Your task to perform on an android device: turn pop-ups on in chrome Image 0: 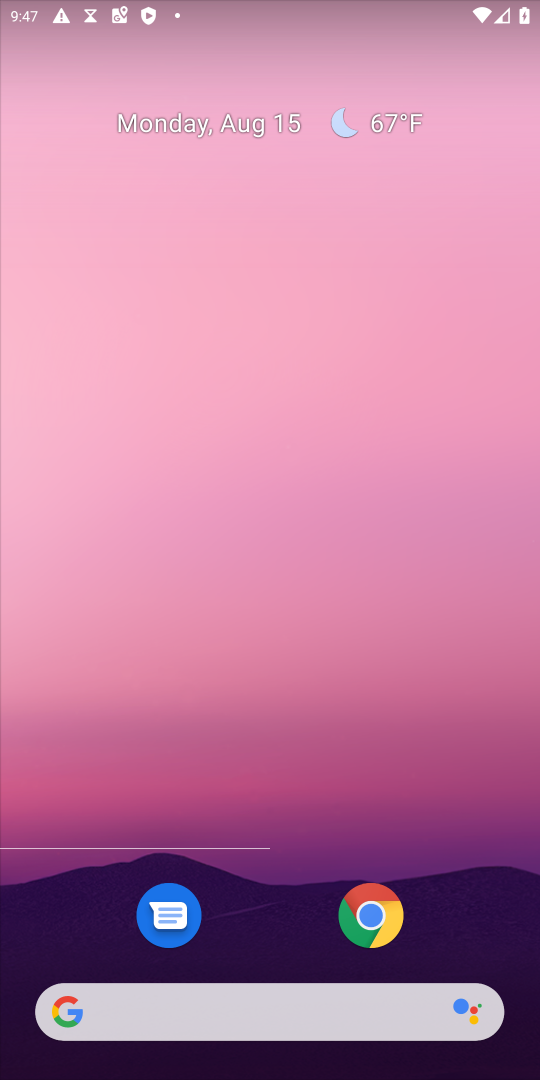
Step 0: click (379, 922)
Your task to perform on an android device: turn pop-ups on in chrome Image 1: 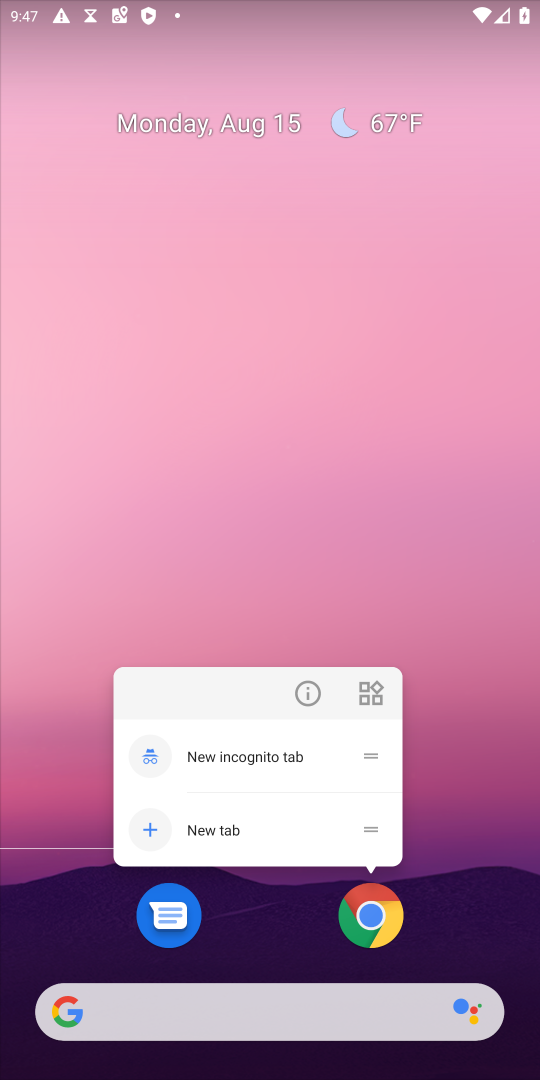
Step 1: click (381, 912)
Your task to perform on an android device: turn pop-ups on in chrome Image 2: 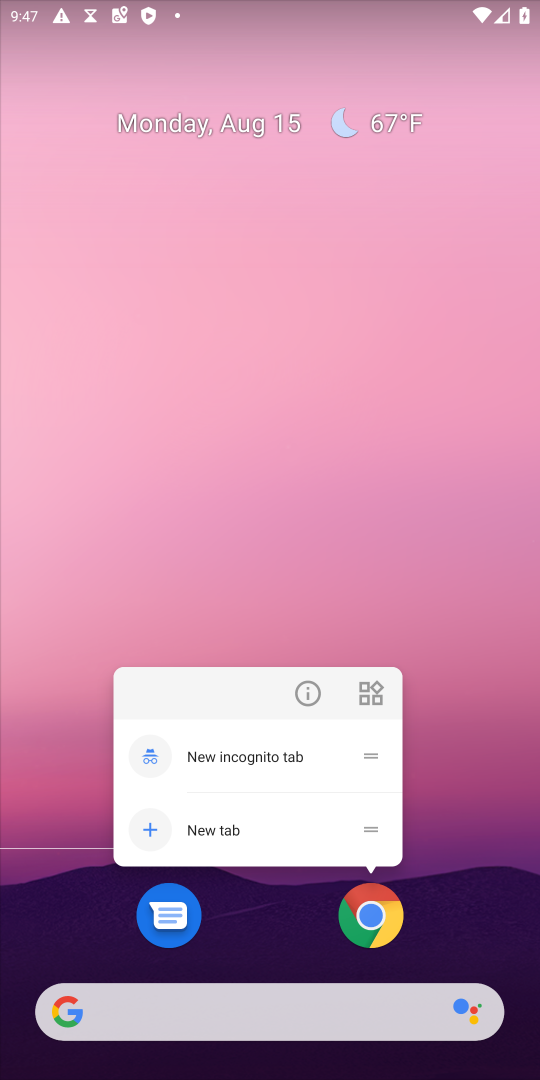
Step 2: click (381, 911)
Your task to perform on an android device: turn pop-ups on in chrome Image 3: 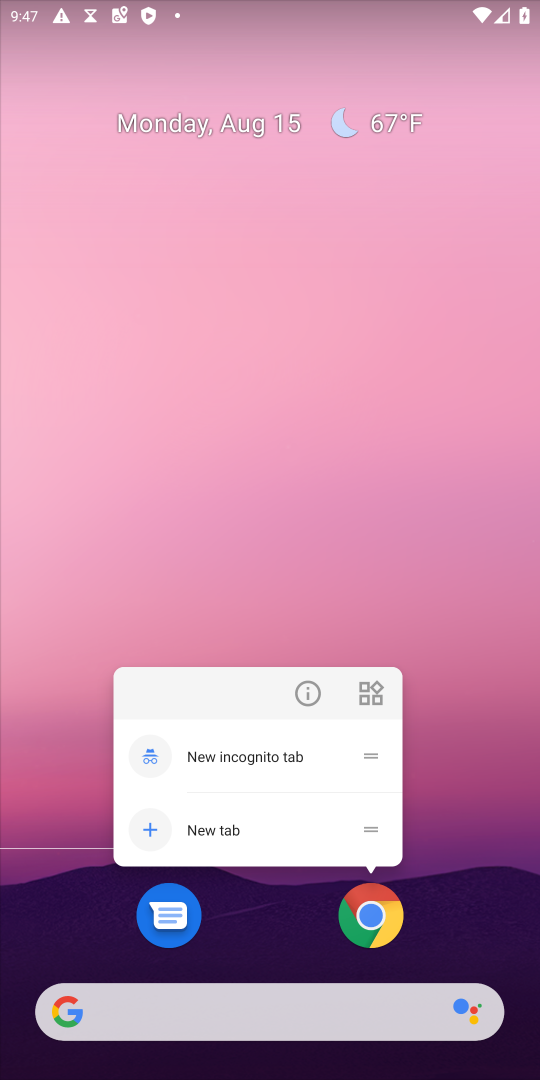
Step 3: click (385, 908)
Your task to perform on an android device: turn pop-ups on in chrome Image 4: 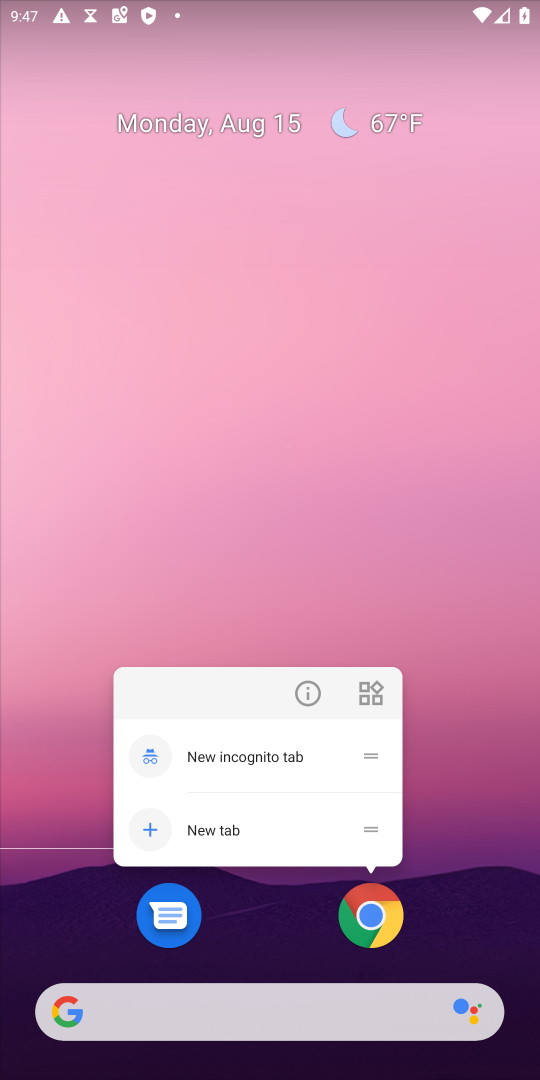
Step 4: click (385, 908)
Your task to perform on an android device: turn pop-ups on in chrome Image 5: 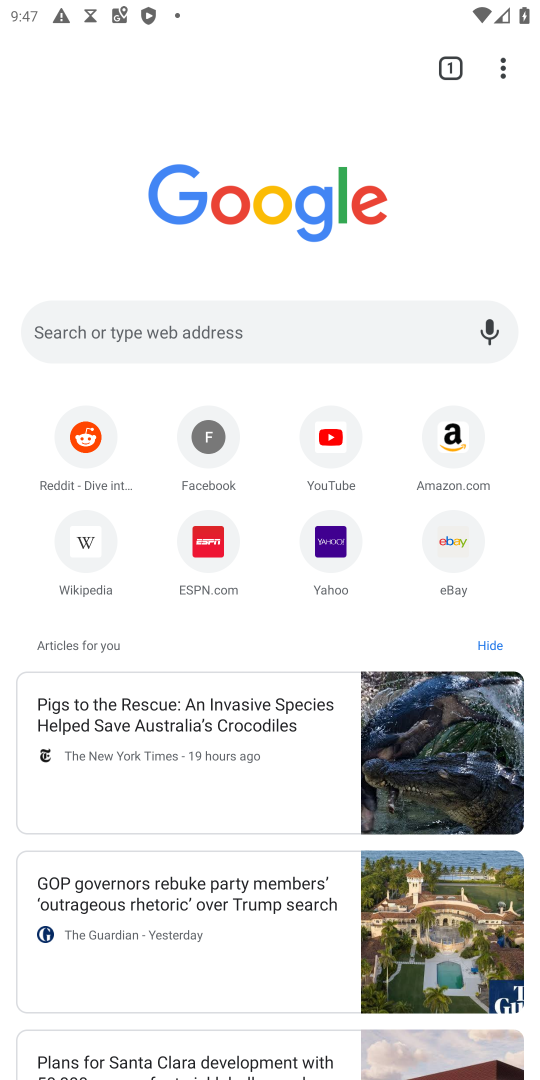
Step 5: drag from (504, 80) to (215, 578)
Your task to perform on an android device: turn pop-ups on in chrome Image 6: 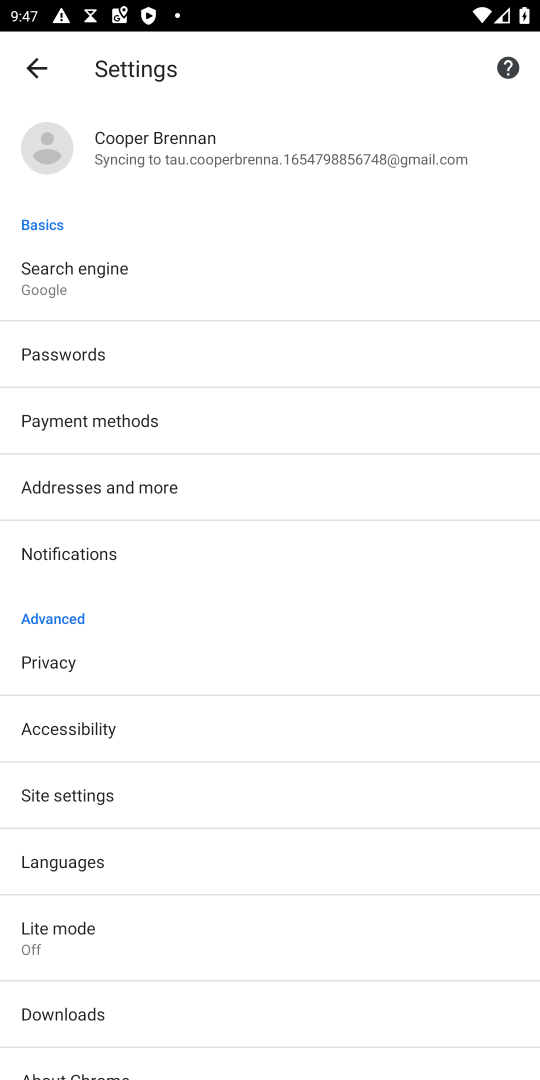
Step 6: click (108, 793)
Your task to perform on an android device: turn pop-ups on in chrome Image 7: 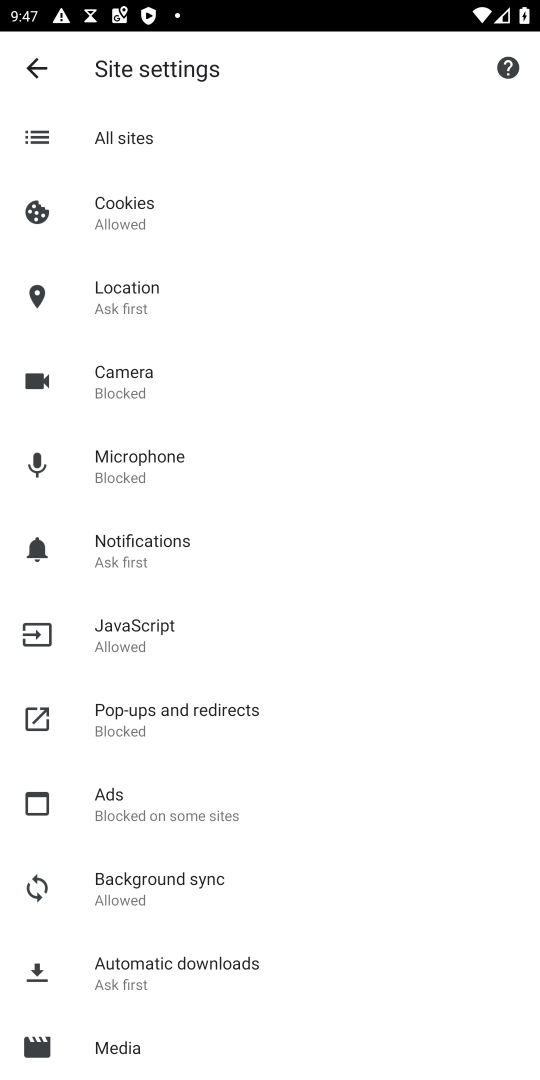
Step 7: click (131, 718)
Your task to perform on an android device: turn pop-ups on in chrome Image 8: 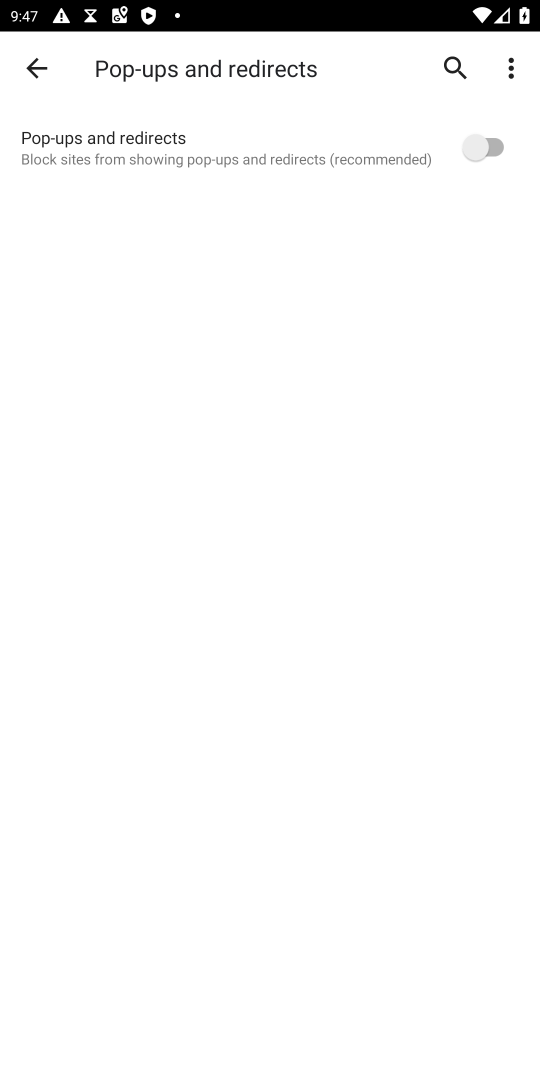
Step 8: click (501, 151)
Your task to perform on an android device: turn pop-ups on in chrome Image 9: 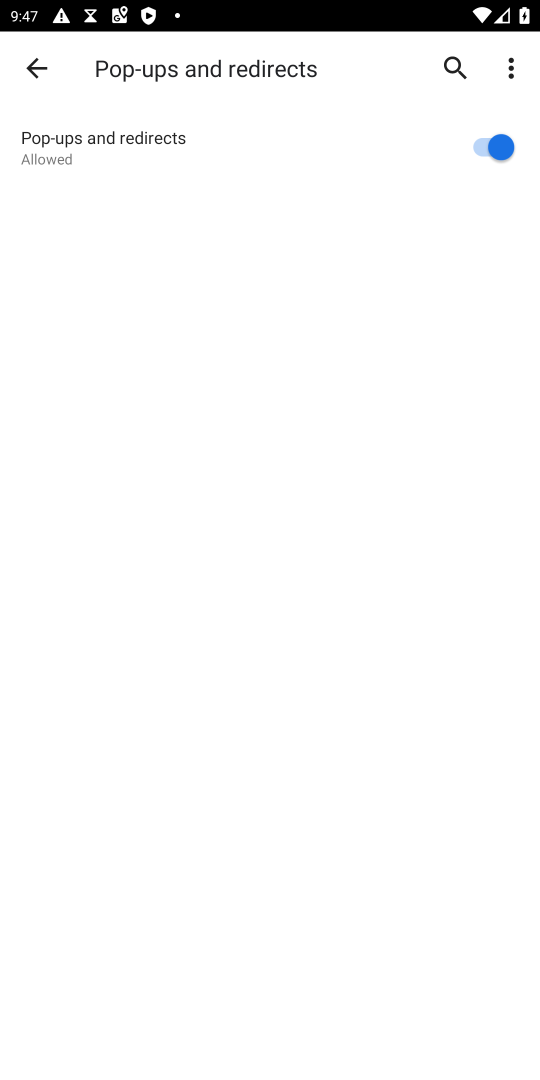
Step 9: task complete